Your task to perform on an android device: Open calendar and show me the second week of next month Image 0: 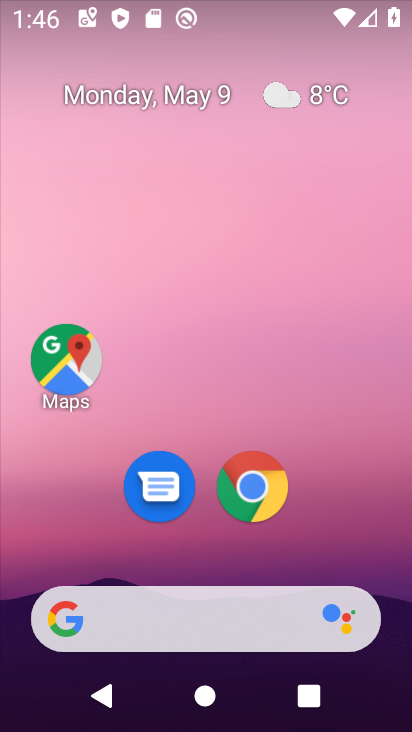
Step 0: drag from (224, 441) to (311, 84)
Your task to perform on an android device: Open calendar and show me the second week of next month Image 1: 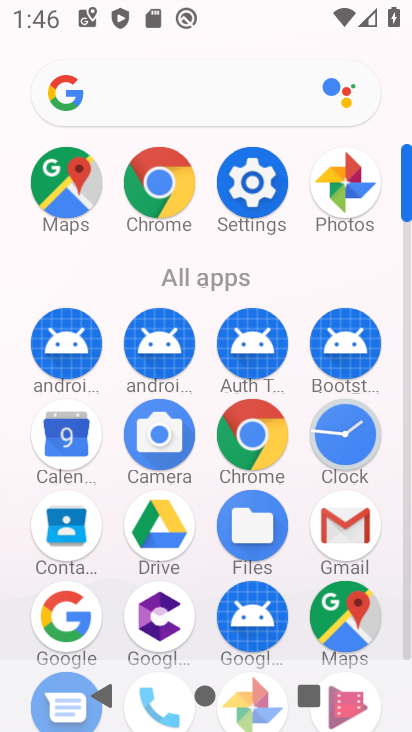
Step 1: click (46, 439)
Your task to perform on an android device: Open calendar and show me the second week of next month Image 2: 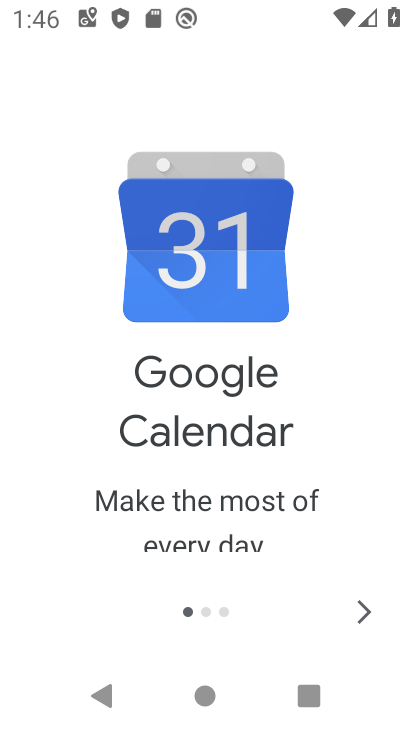
Step 2: click (351, 598)
Your task to perform on an android device: Open calendar and show me the second week of next month Image 3: 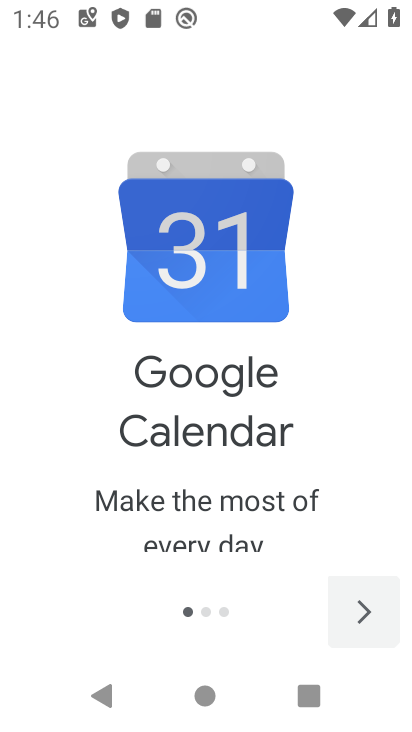
Step 3: click (352, 597)
Your task to perform on an android device: Open calendar and show me the second week of next month Image 4: 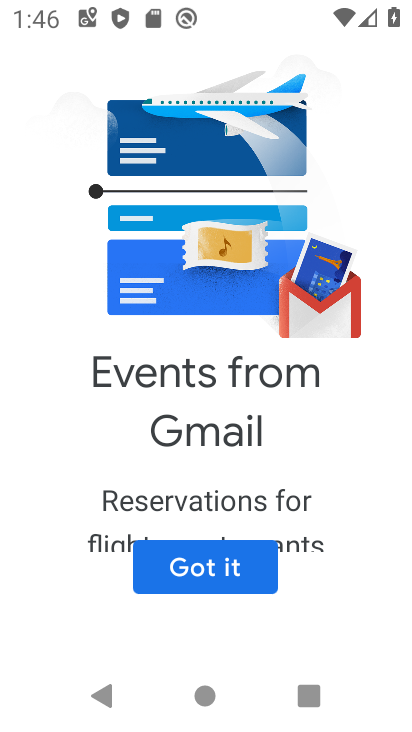
Step 4: click (245, 559)
Your task to perform on an android device: Open calendar and show me the second week of next month Image 5: 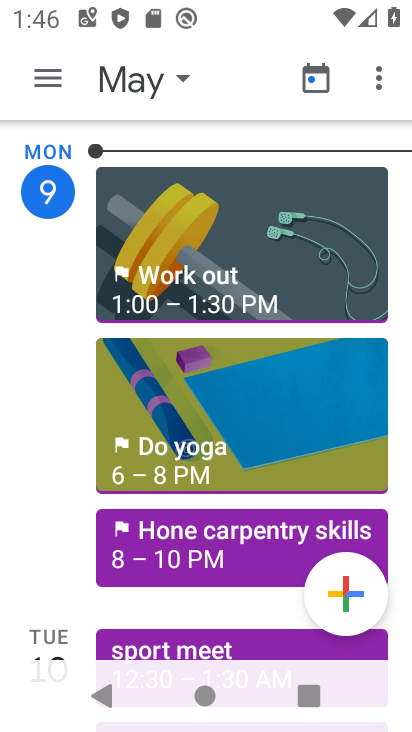
Step 5: click (48, 71)
Your task to perform on an android device: Open calendar and show me the second week of next month Image 6: 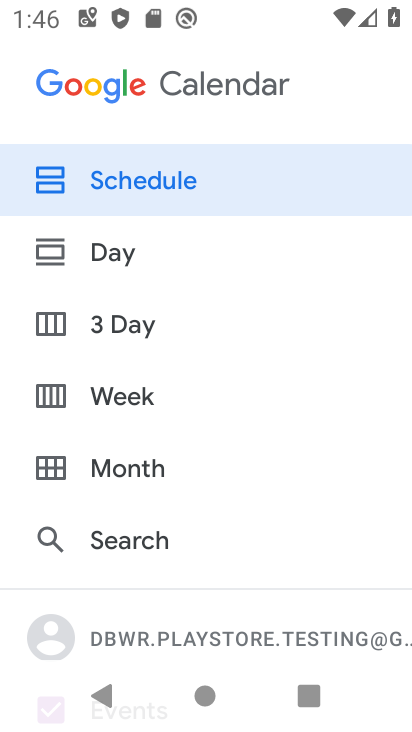
Step 6: click (93, 467)
Your task to perform on an android device: Open calendar and show me the second week of next month Image 7: 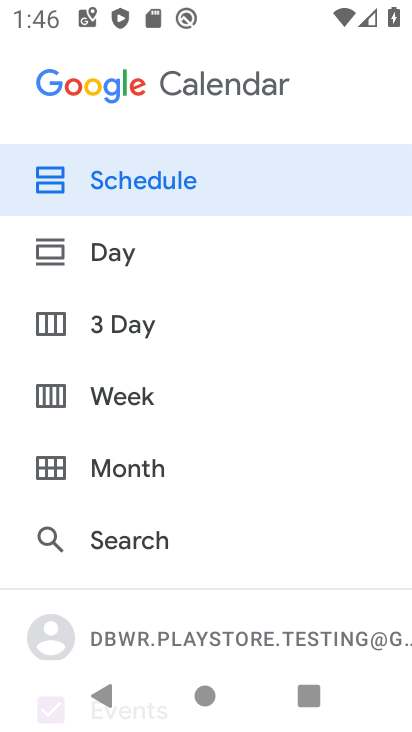
Step 7: click (95, 466)
Your task to perform on an android device: Open calendar and show me the second week of next month Image 8: 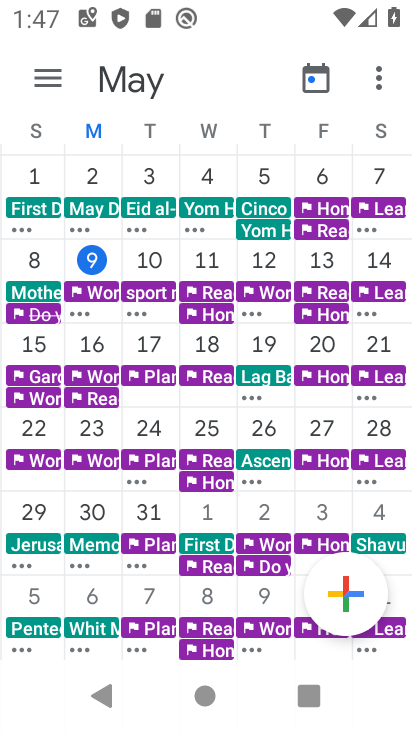
Step 8: click (152, 76)
Your task to perform on an android device: Open calendar and show me the second week of next month Image 9: 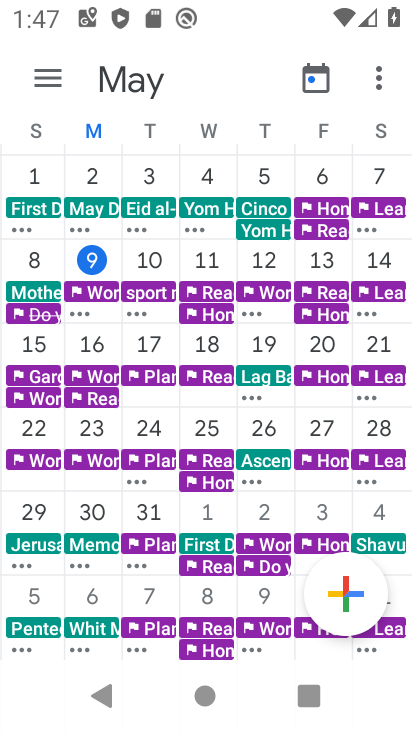
Step 9: click (381, 75)
Your task to perform on an android device: Open calendar and show me the second week of next month Image 10: 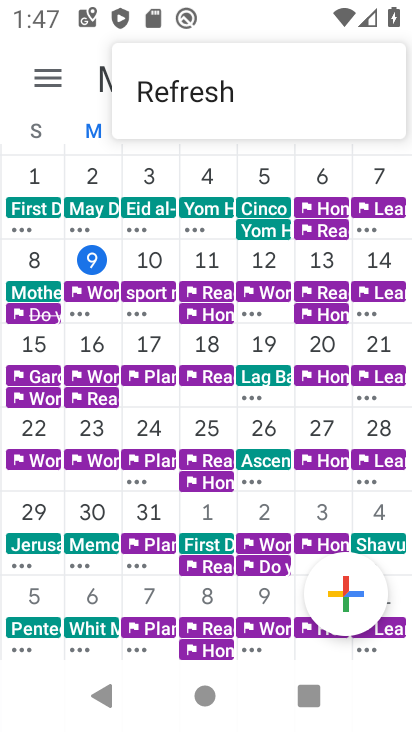
Step 10: click (91, 69)
Your task to perform on an android device: Open calendar and show me the second week of next month Image 11: 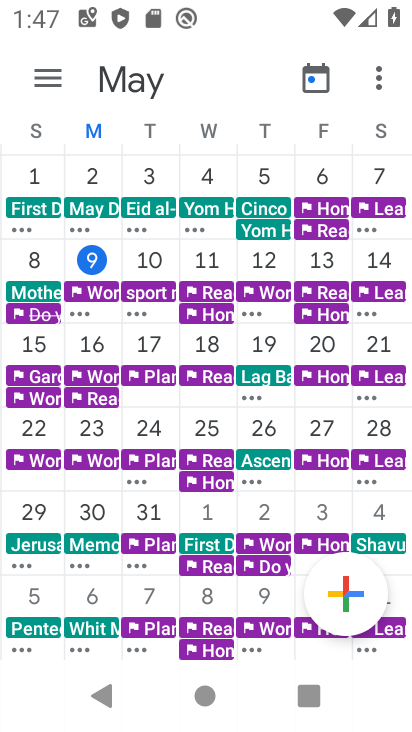
Step 11: task complete